Your task to perform on an android device: Toggle the flashlight Image 0: 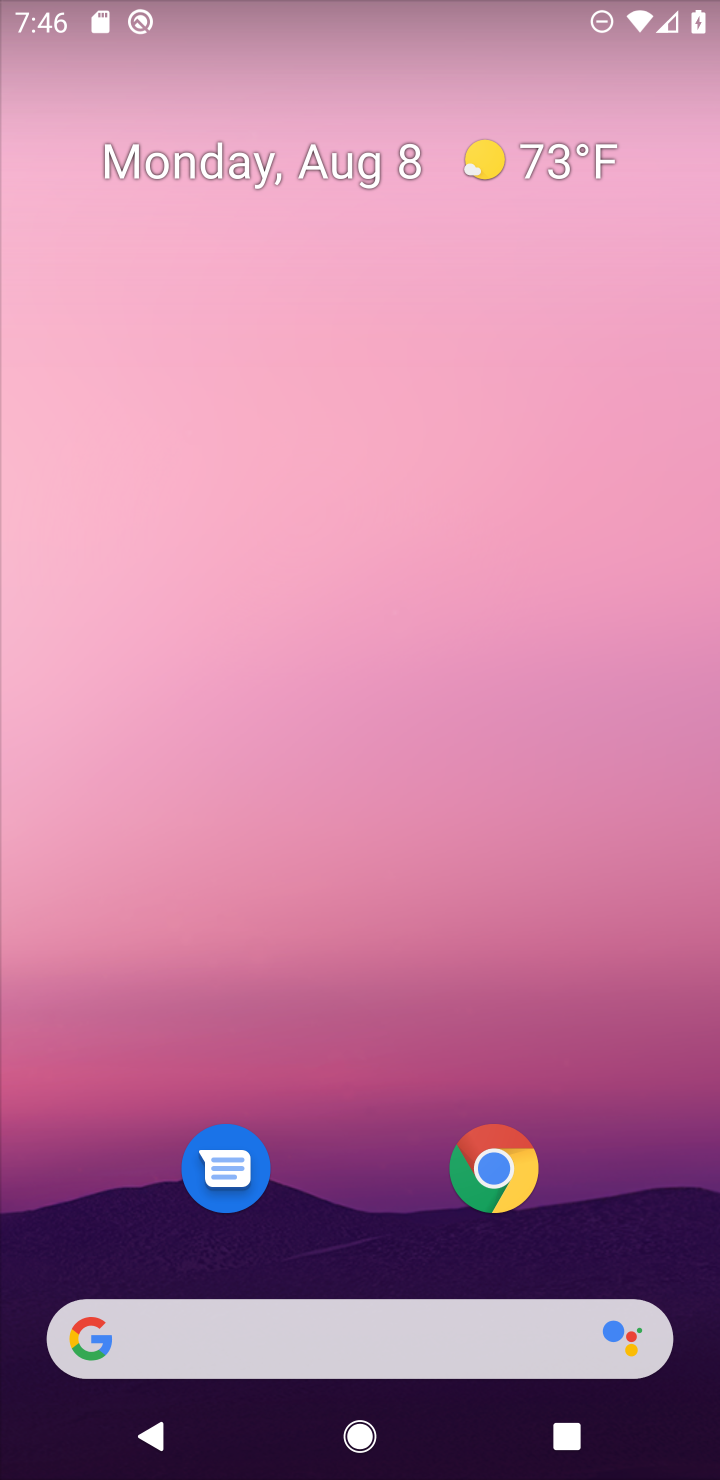
Step 0: press home button
Your task to perform on an android device: Toggle the flashlight Image 1: 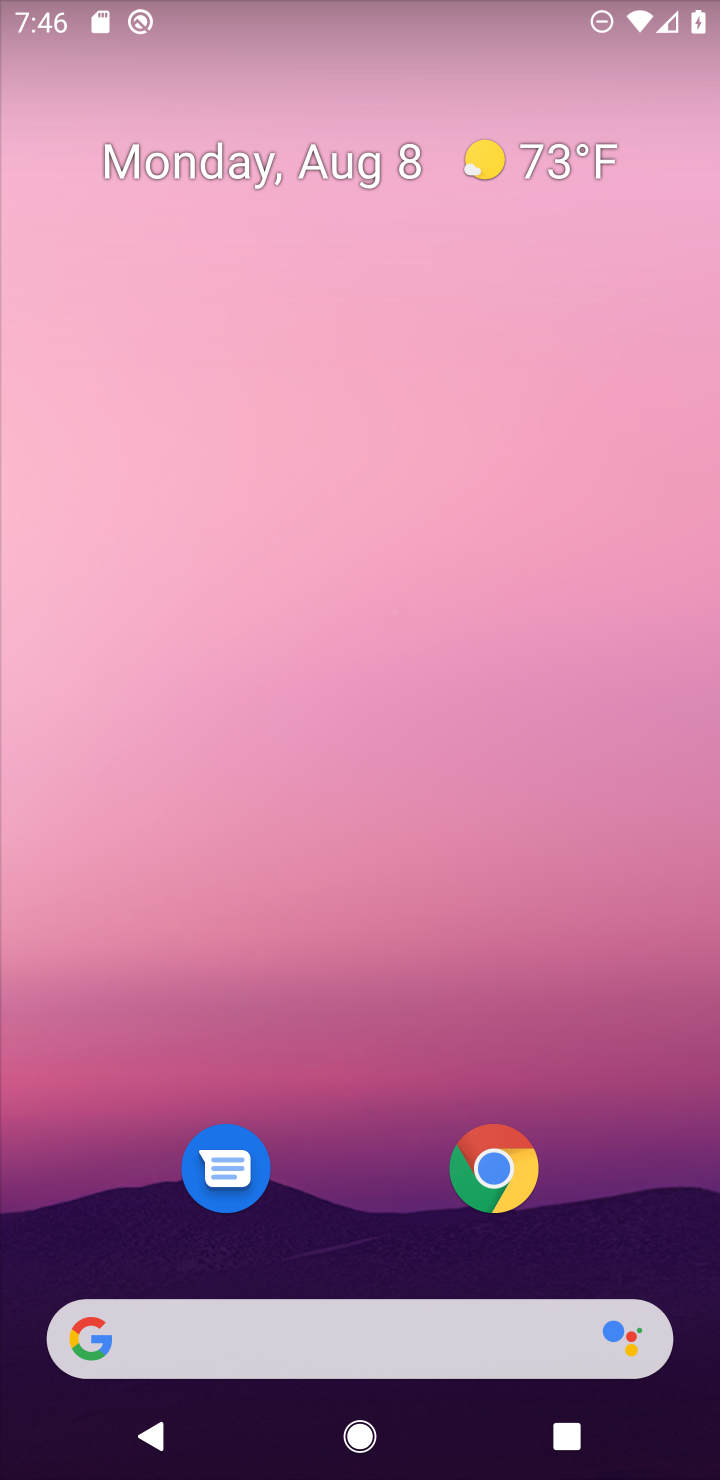
Step 1: task complete